Your task to perform on an android device: search for starred emails in the gmail app Image 0: 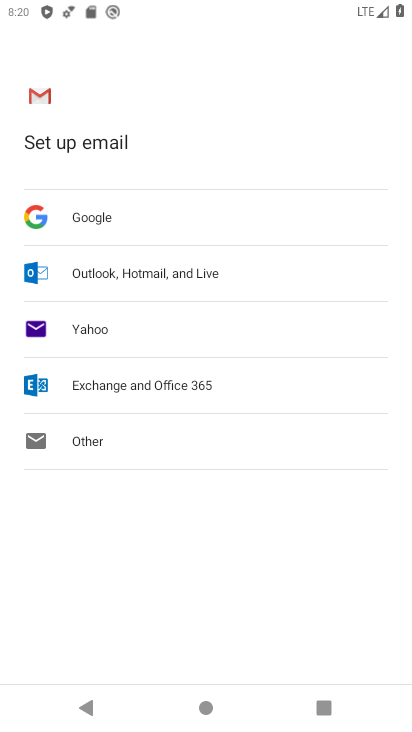
Step 0: press back button
Your task to perform on an android device: search for starred emails in the gmail app Image 1: 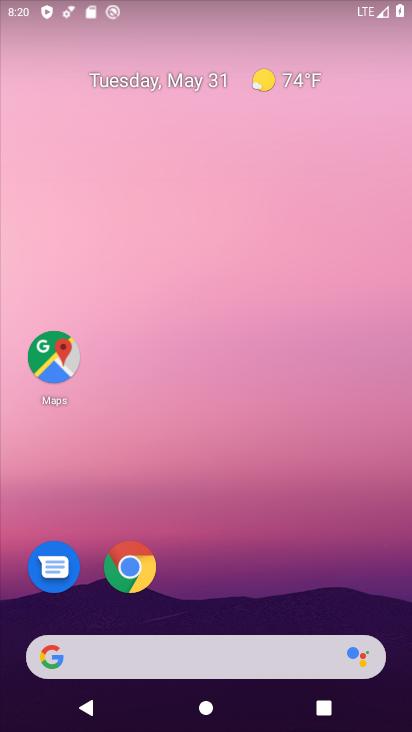
Step 1: drag from (269, 711) to (281, 163)
Your task to perform on an android device: search for starred emails in the gmail app Image 2: 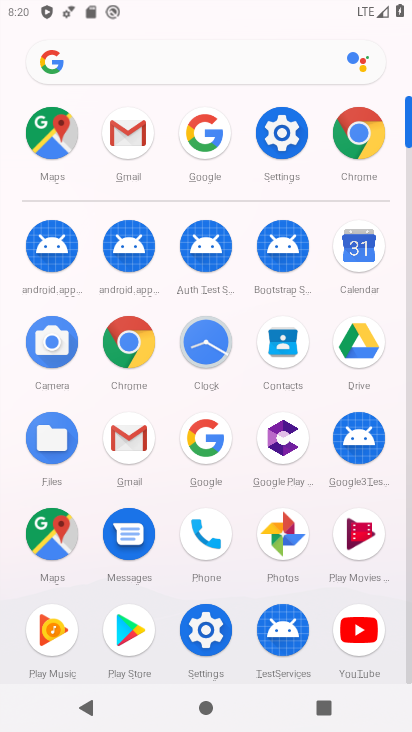
Step 2: click (121, 130)
Your task to perform on an android device: search for starred emails in the gmail app Image 3: 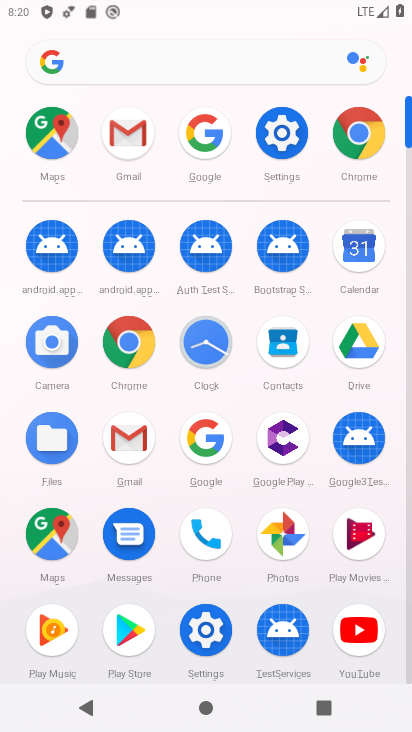
Step 3: click (121, 130)
Your task to perform on an android device: search for starred emails in the gmail app Image 4: 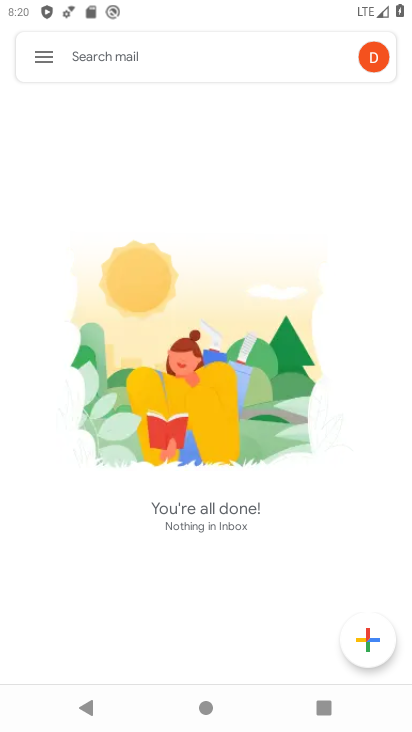
Step 4: click (47, 51)
Your task to perform on an android device: search for starred emails in the gmail app Image 5: 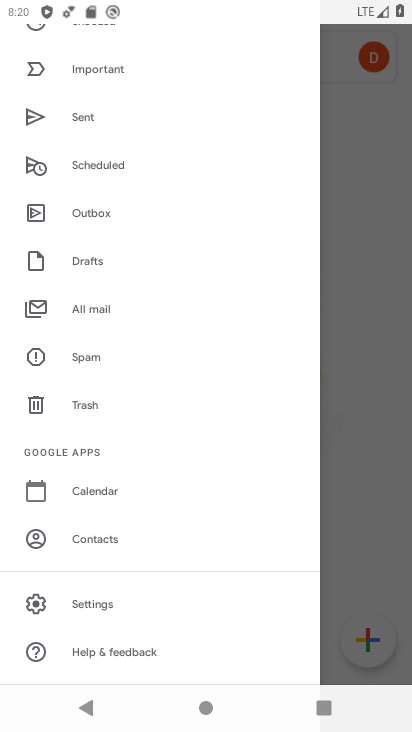
Step 5: drag from (78, 153) to (109, 482)
Your task to perform on an android device: search for starred emails in the gmail app Image 6: 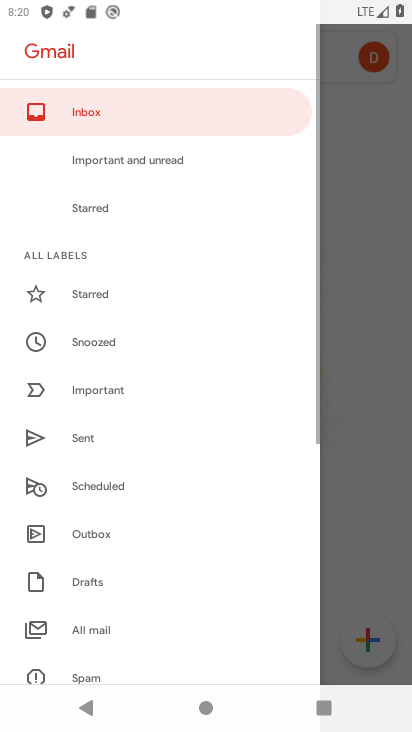
Step 6: drag from (92, 124) to (96, 406)
Your task to perform on an android device: search for starred emails in the gmail app Image 7: 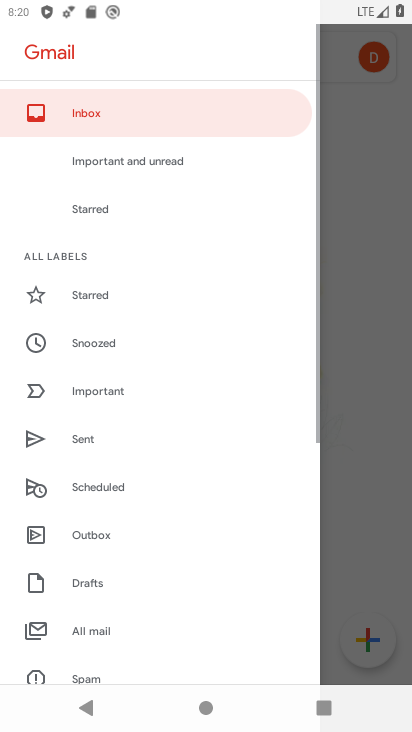
Step 7: click (84, 288)
Your task to perform on an android device: search for starred emails in the gmail app Image 8: 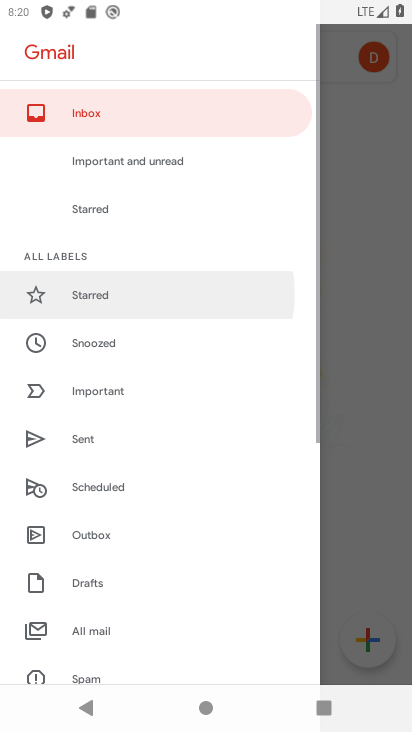
Step 8: click (84, 288)
Your task to perform on an android device: search for starred emails in the gmail app Image 9: 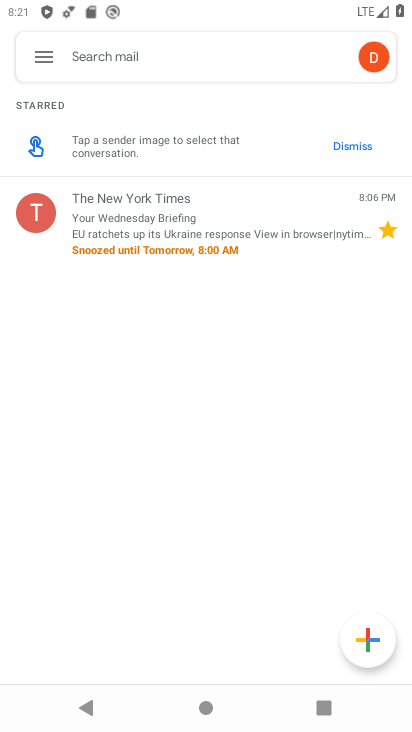
Step 9: task complete